Your task to perform on an android device: turn on translation in the chrome app Image 0: 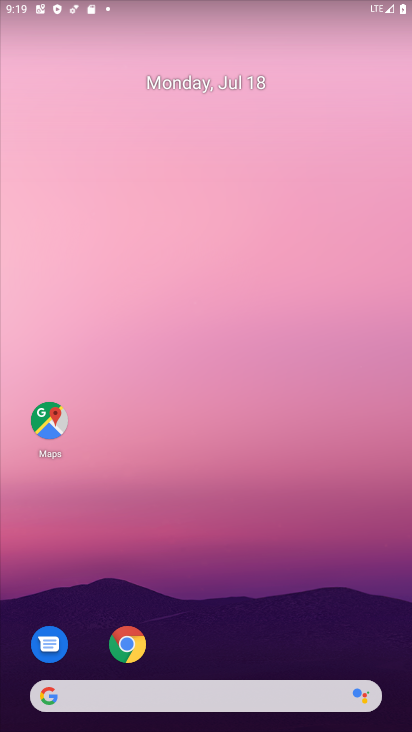
Step 0: drag from (205, 661) to (194, 4)
Your task to perform on an android device: turn on translation in the chrome app Image 1: 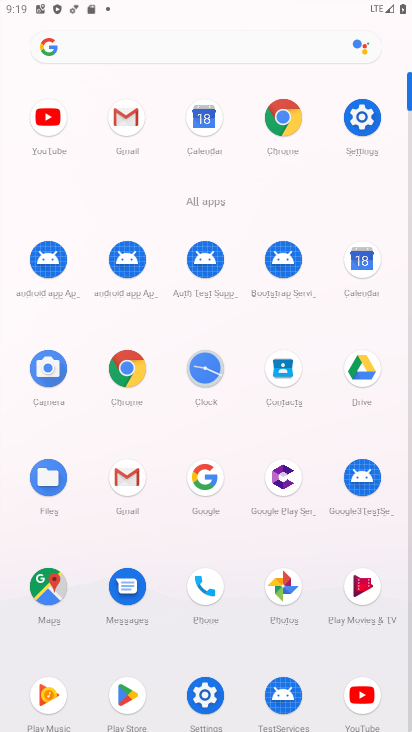
Step 1: click (132, 380)
Your task to perform on an android device: turn on translation in the chrome app Image 2: 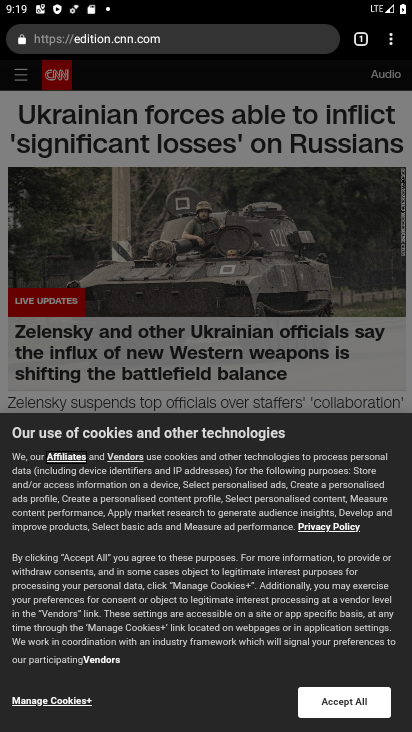
Step 2: drag from (390, 42) to (246, 437)
Your task to perform on an android device: turn on translation in the chrome app Image 3: 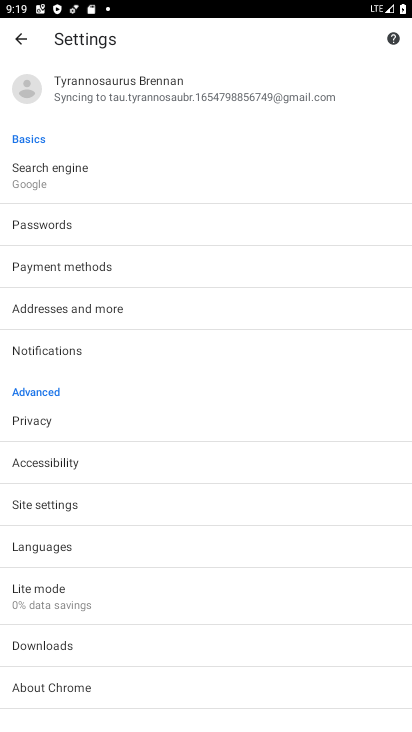
Step 3: click (2, 549)
Your task to perform on an android device: turn on translation in the chrome app Image 4: 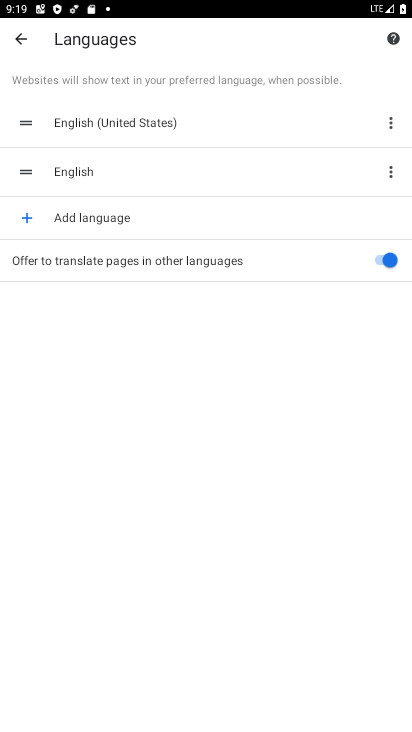
Step 4: task complete